Your task to perform on an android device: Go to Yahoo.com Image 0: 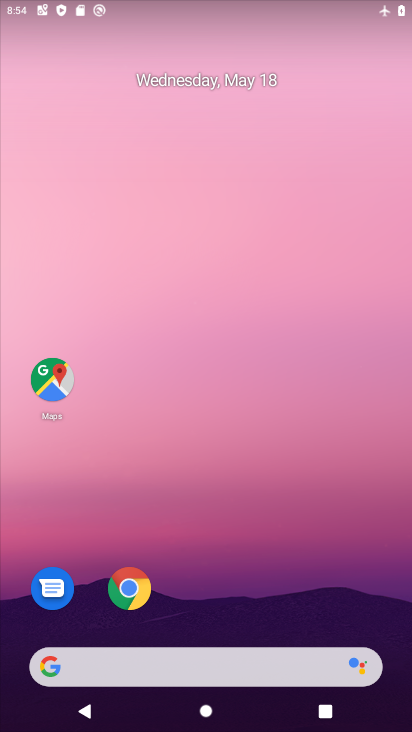
Step 0: click (126, 593)
Your task to perform on an android device: Go to Yahoo.com Image 1: 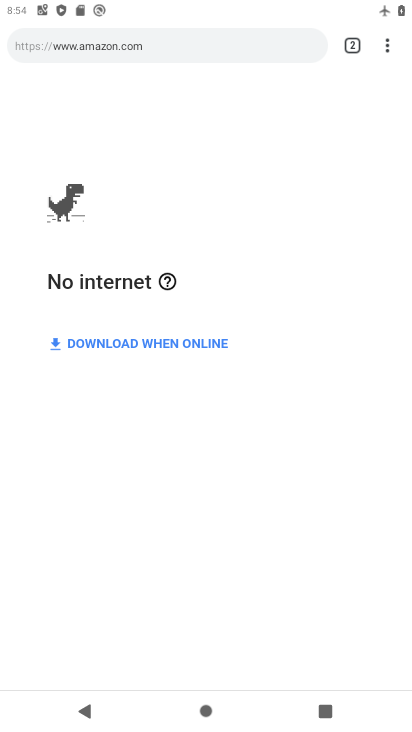
Step 1: click (103, 46)
Your task to perform on an android device: Go to Yahoo.com Image 2: 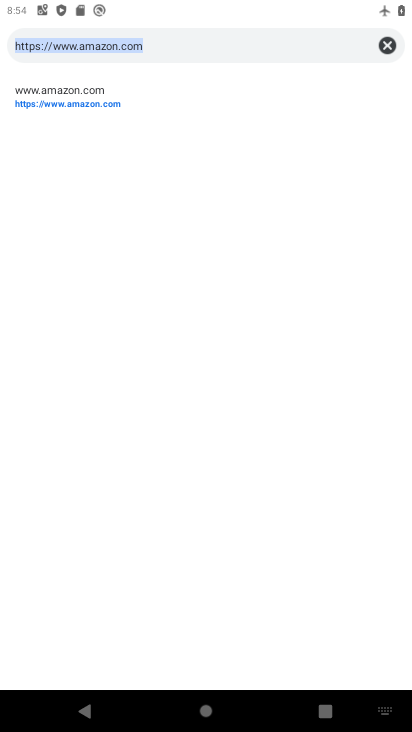
Step 2: type "yahoo.om"
Your task to perform on an android device: Go to Yahoo.com Image 3: 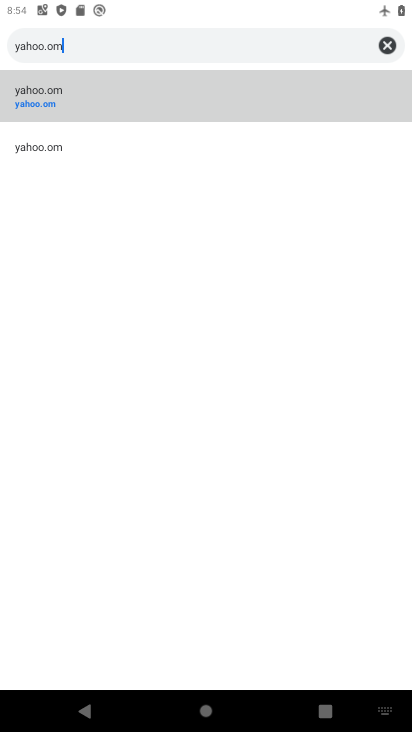
Step 3: click (388, 45)
Your task to perform on an android device: Go to Yahoo.com Image 4: 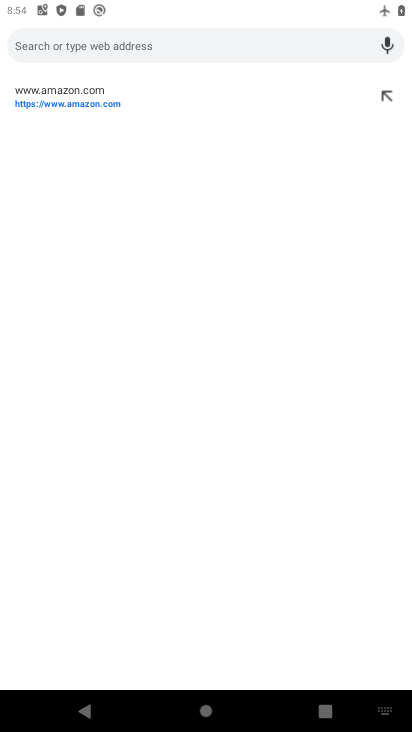
Step 4: type "yahoo.com"
Your task to perform on an android device: Go to Yahoo.com Image 5: 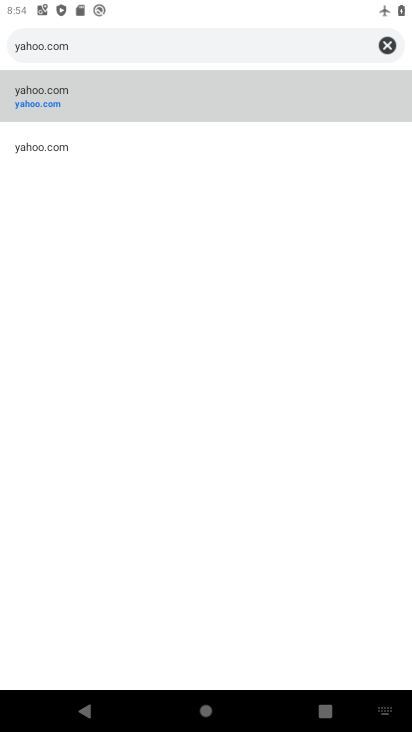
Step 5: click (45, 93)
Your task to perform on an android device: Go to Yahoo.com Image 6: 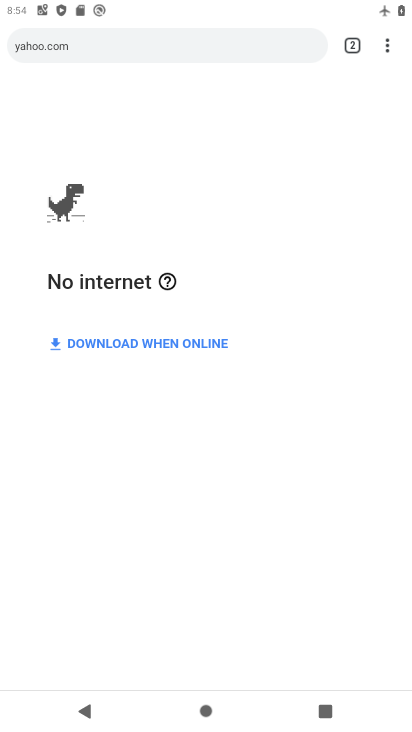
Step 6: task complete